Your task to perform on an android device: toggle translation in the chrome app Image 0: 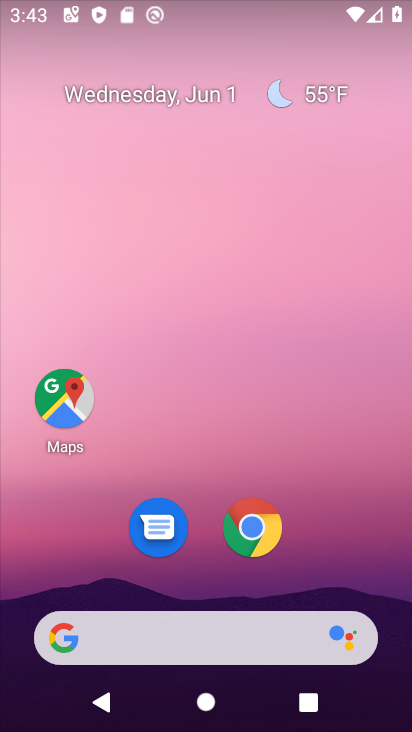
Step 0: press home button
Your task to perform on an android device: toggle translation in the chrome app Image 1: 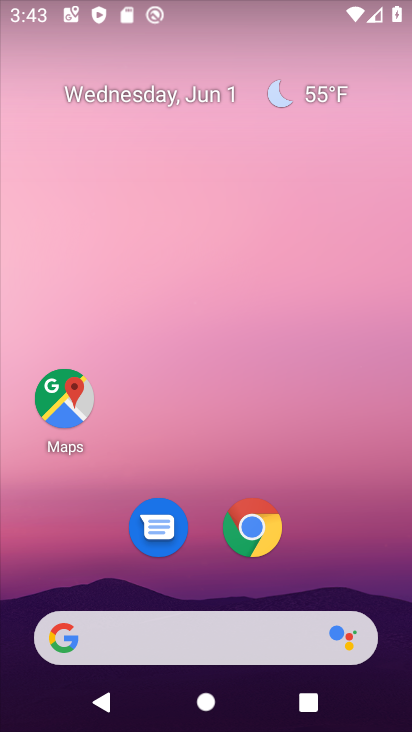
Step 1: click (255, 537)
Your task to perform on an android device: toggle translation in the chrome app Image 2: 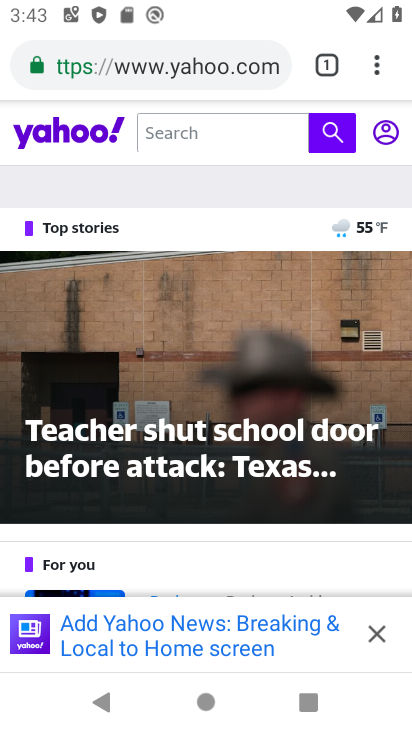
Step 2: drag from (374, 55) to (87, 589)
Your task to perform on an android device: toggle translation in the chrome app Image 3: 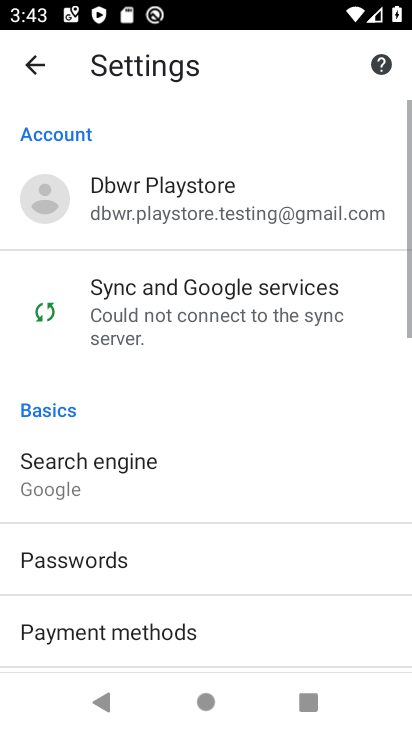
Step 3: drag from (183, 537) to (120, 291)
Your task to perform on an android device: toggle translation in the chrome app Image 4: 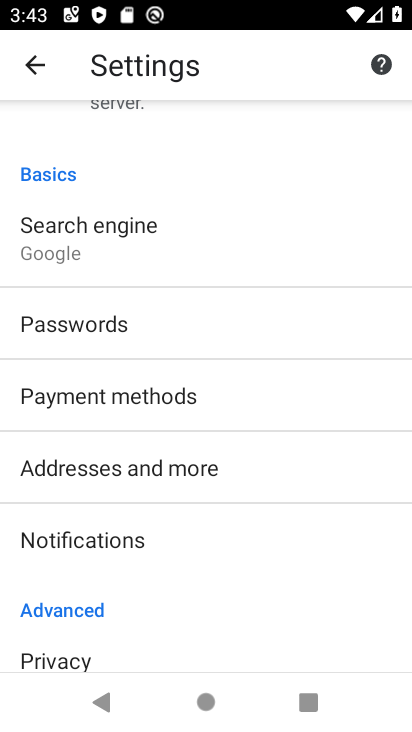
Step 4: drag from (218, 398) to (218, 277)
Your task to perform on an android device: toggle translation in the chrome app Image 5: 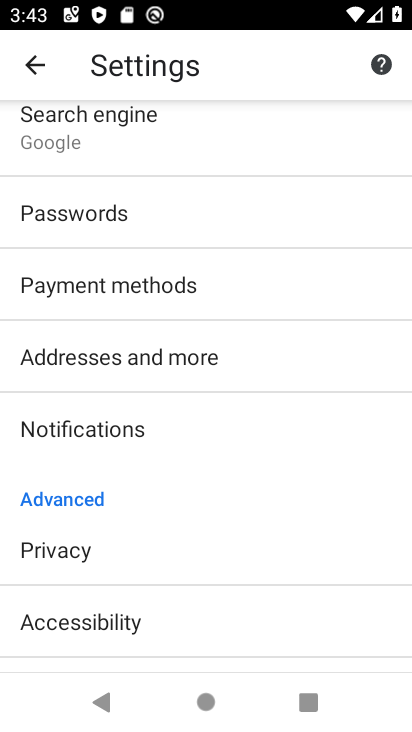
Step 5: drag from (213, 638) to (324, 11)
Your task to perform on an android device: toggle translation in the chrome app Image 6: 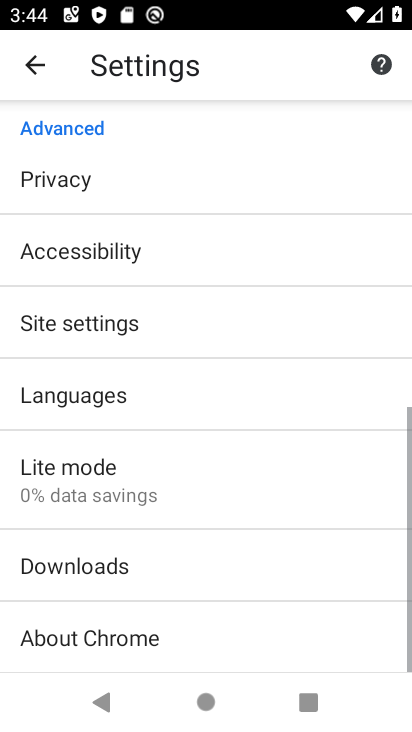
Step 6: click (156, 387)
Your task to perform on an android device: toggle translation in the chrome app Image 7: 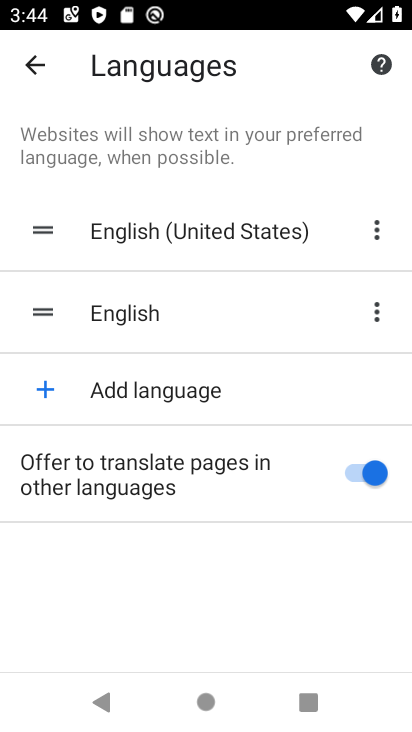
Step 7: click (266, 457)
Your task to perform on an android device: toggle translation in the chrome app Image 8: 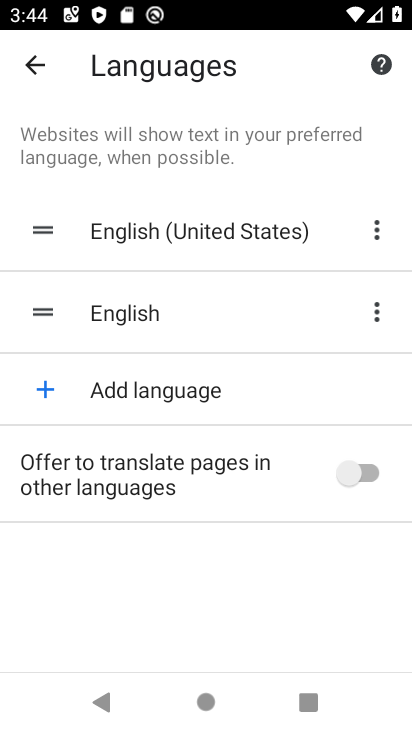
Step 8: task complete